Your task to perform on an android device: Search for Italian restaurants on Maps Image 0: 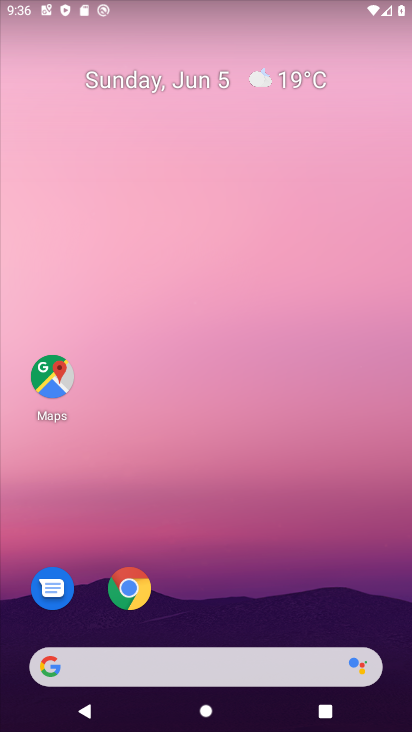
Step 0: drag from (349, 595) to (351, 267)
Your task to perform on an android device: Search for Italian restaurants on Maps Image 1: 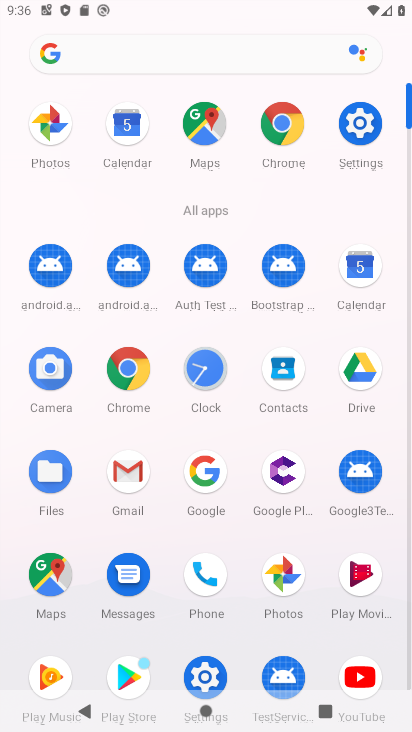
Step 1: click (49, 585)
Your task to perform on an android device: Search for Italian restaurants on Maps Image 2: 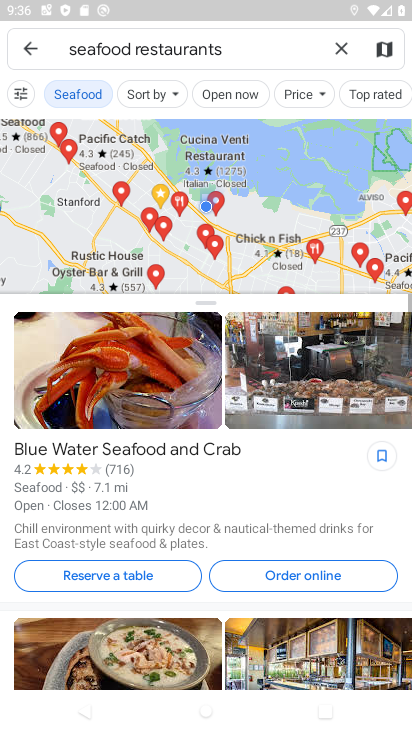
Step 2: click (333, 54)
Your task to perform on an android device: Search for Italian restaurants on Maps Image 3: 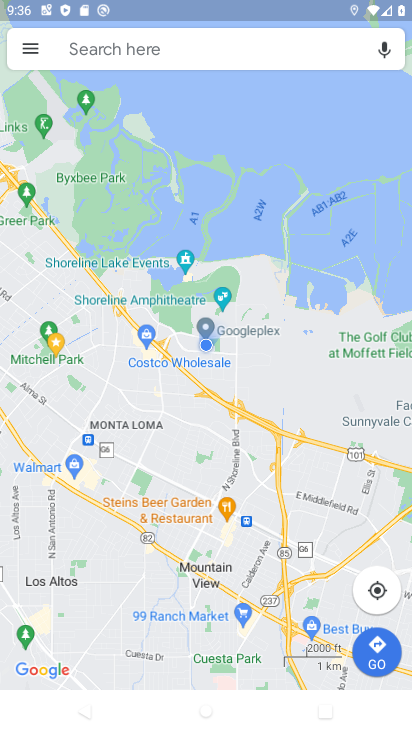
Step 3: click (292, 52)
Your task to perform on an android device: Search for Italian restaurants on Maps Image 4: 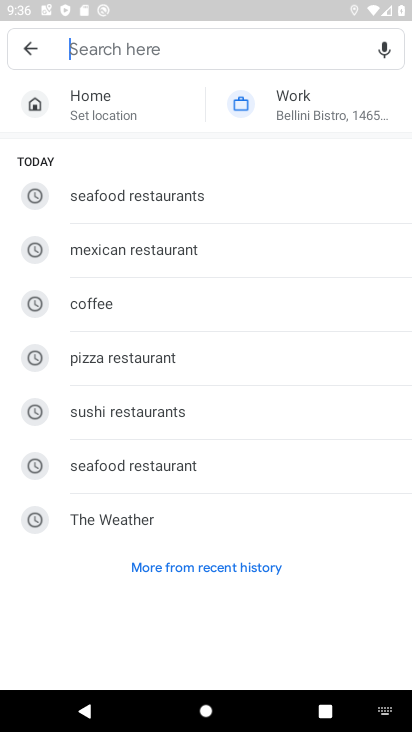
Step 4: type "italian restaurants"
Your task to perform on an android device: Search for Italian restaurants on Maps Image 5: 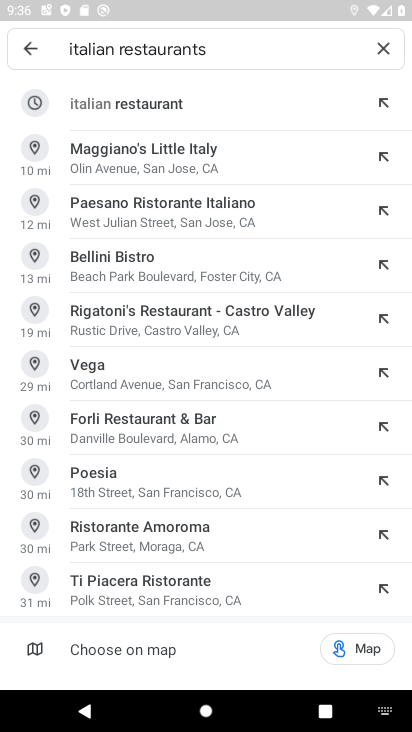
Step 5: click (239, 104)
Your task to perform on an android device: Search for Italian restaurants on Maps Image 6: 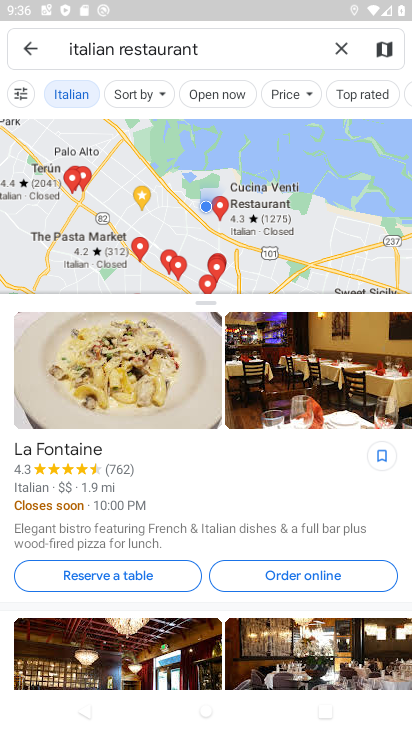
Step 6: task complete